Your task to perform on an android device: turn on showing notifications on the lock screen Image 0: 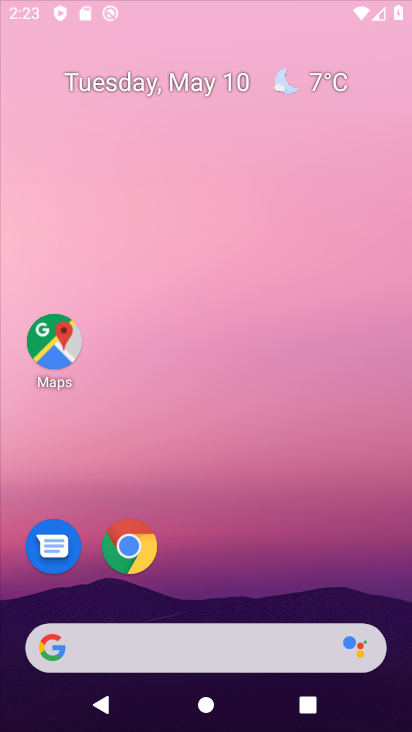
Step 0: click (150, 548)
Your task to perform on an android device: turn on showing notifications on the lock screen Image 1: 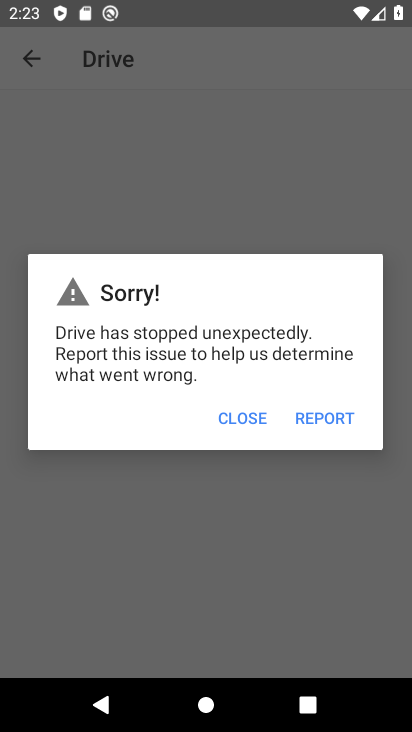
Step 1: press home button
Your task to perform on an android device: turn on showing notifications on the lock screen Image 2: 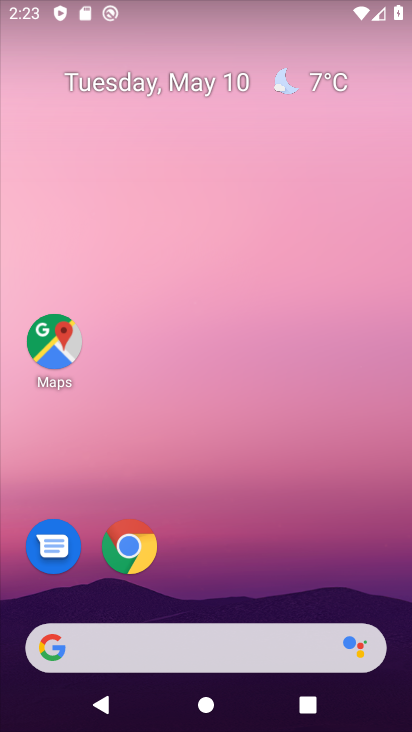
Step 2: drag from (206, 577) to (270, 139)
Your task to perform on an android device: turn on showing notifications on the lock screen Image 3: 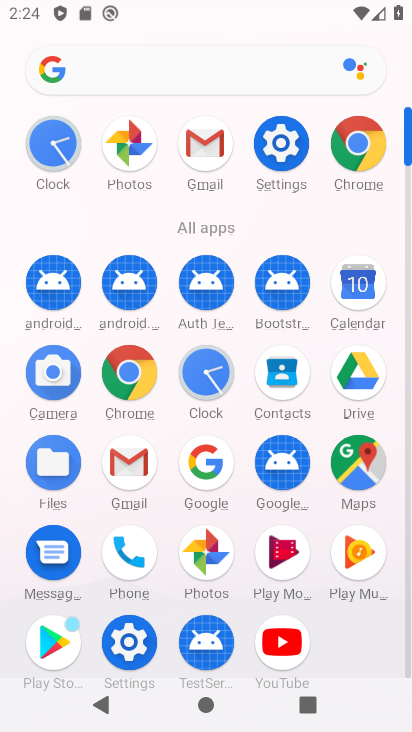
Step 3: click (282, 161)
Your task to perform on an android device: turn on showing notifications on the lock screen Image 4: 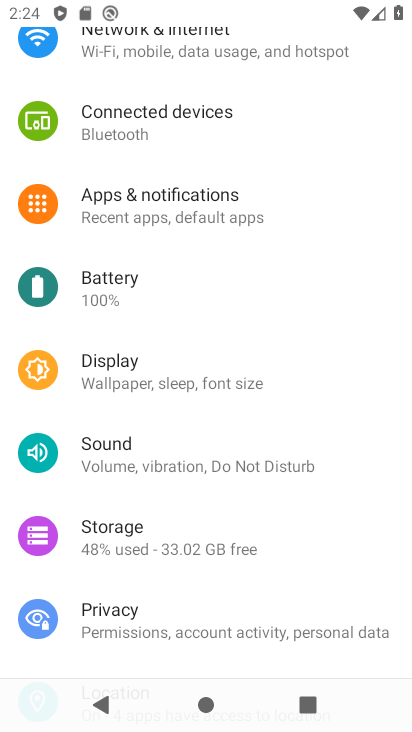
Step 4: click (187, 217)
Your task to perform on an android device: turn on showing notifications on the lock screen Image 5: 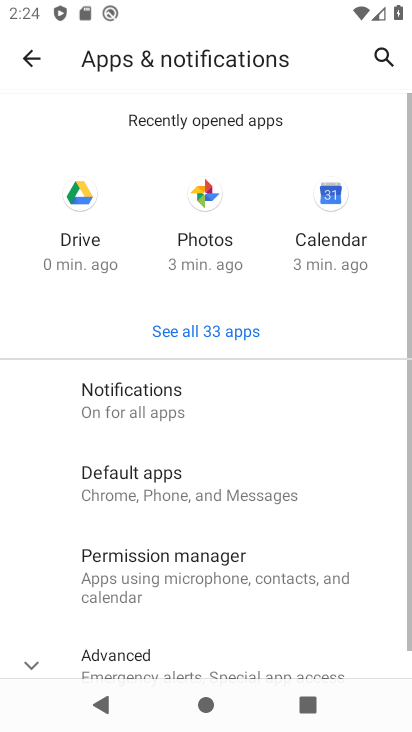
Step 5: click (171, 404)
Your task to perform on an android device: turn on showing notifications on the lock screen Image 6: 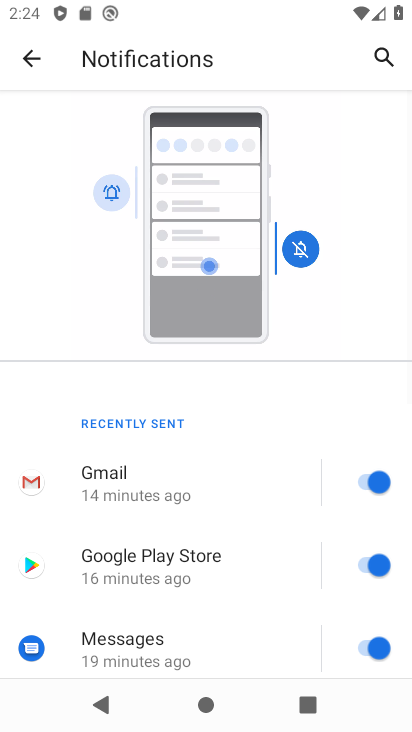
Step 6: drag from (225, 611) to (218, 310)
Your task to perform on an android device: turn on showing notifications on the lock screen Image 7: 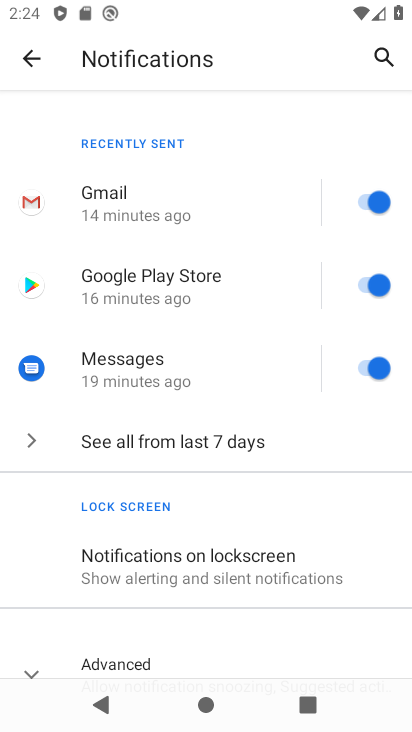
Step 7: click (229, 555)
Your task to perform on an android device: turn on showing notifications on the lock screen Image 8: 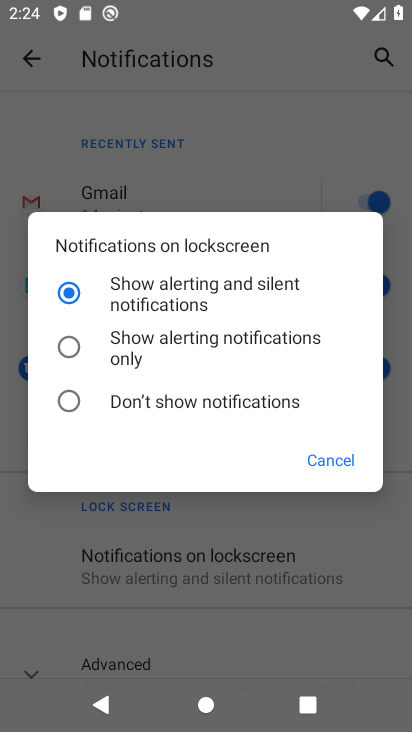
Step 8: task complete